Your task to perform on an android device: Check the news Image 0: 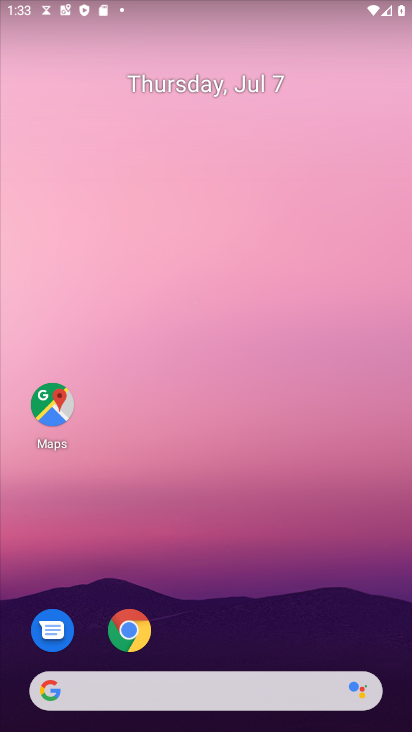
Step 0: drag from (291, 614) to (219, 170)
Your task to perform on an android device: Check the news Image 1: 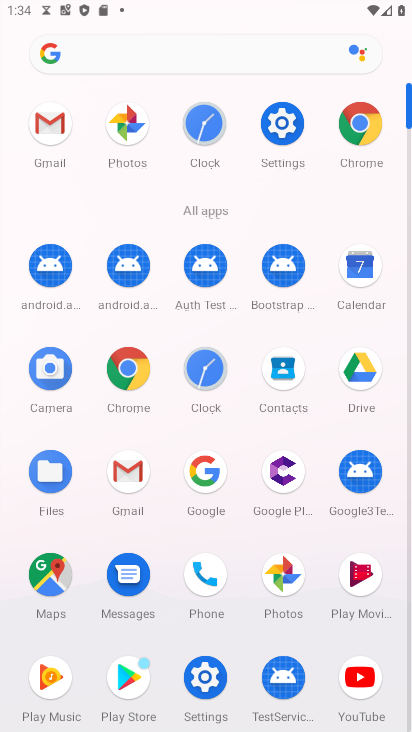
Step 1: click (362, 125)
Your task to perform on an android device: Check the news Image 2: 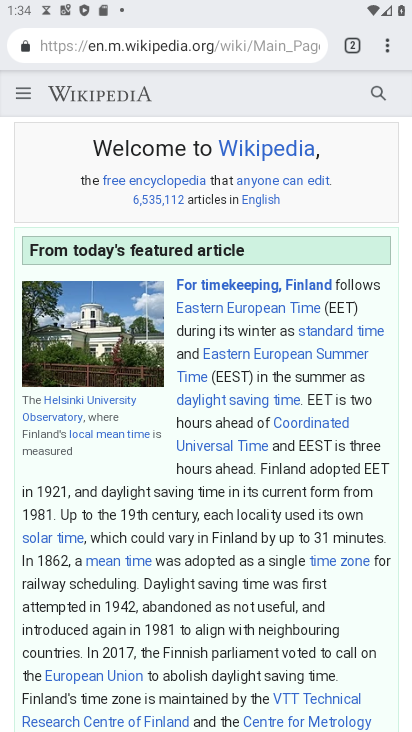
Step 2: click (242, 30)
Your task to perform on an android device: Check the news Image 3: 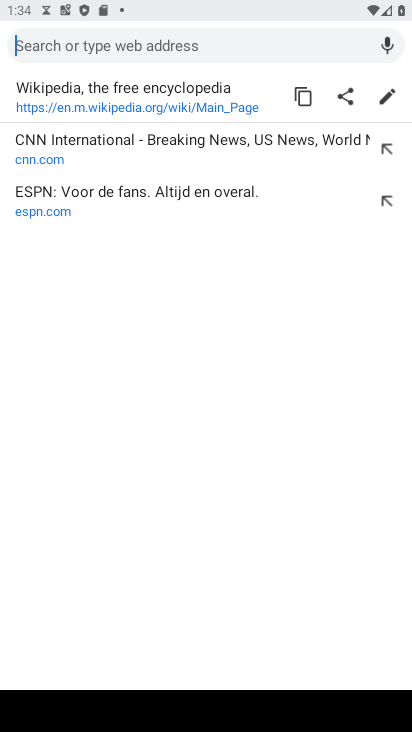
Step 3: type "news"
Your task to perform on an android device: Check the news Image 4: 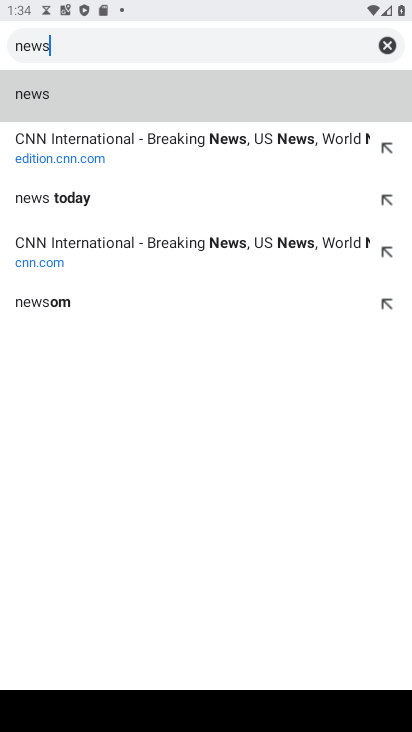
Step 4: click (105, 88)
Your task to perform on an android device: Check the news Image 5: 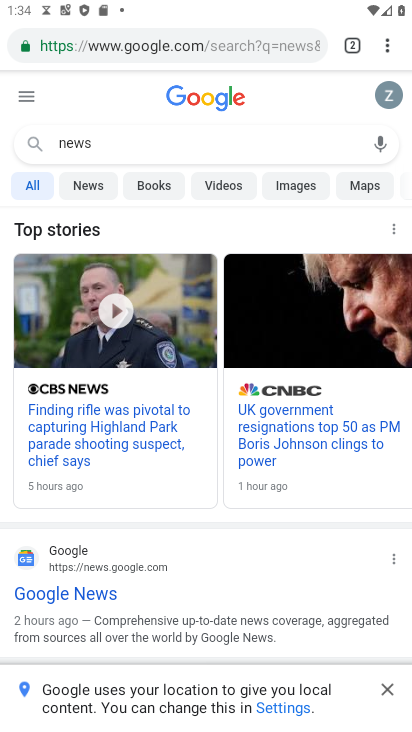
Step 5: task complete